Your task to perform on an android device: Find coffee shops on Maps Image 0: 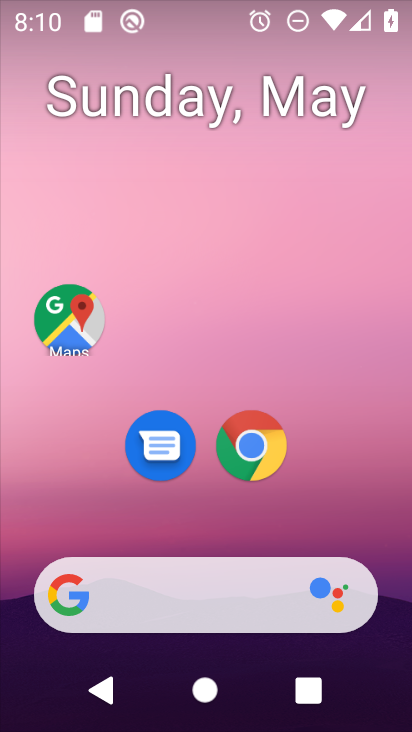
Step 0: drag from (196, 670) to (200, 268)
Your task to perform on an android device: Find coffee shops on Maps Image 1: 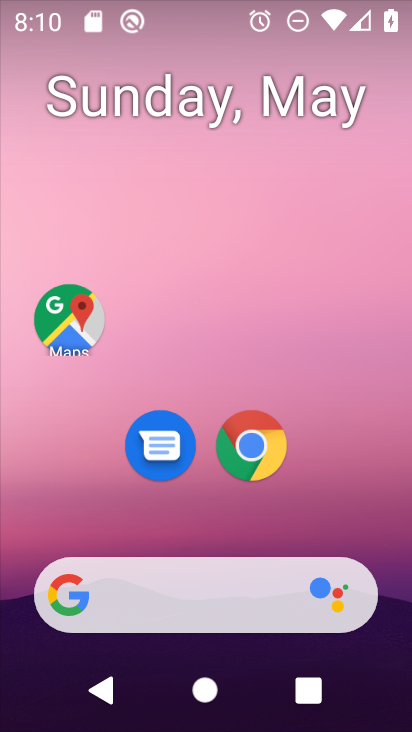
Step 1: click (85, 332)
Your task to perform on an android device: Find coffee shops on Maps Image 2: 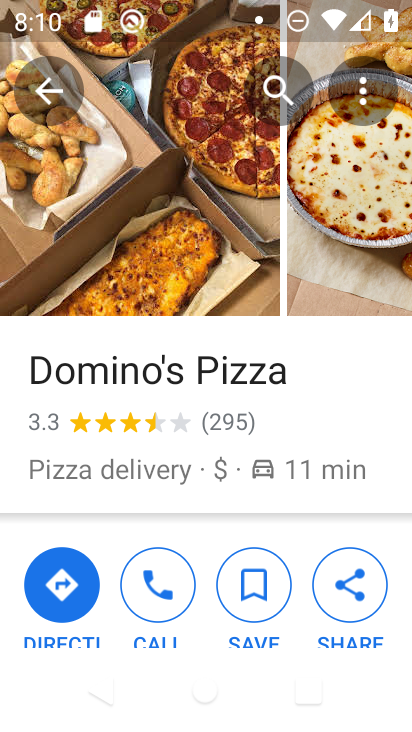
Step 2: click (55, 111)
Your task to perform on an android device: Find coffee shops on Maps Image 3: 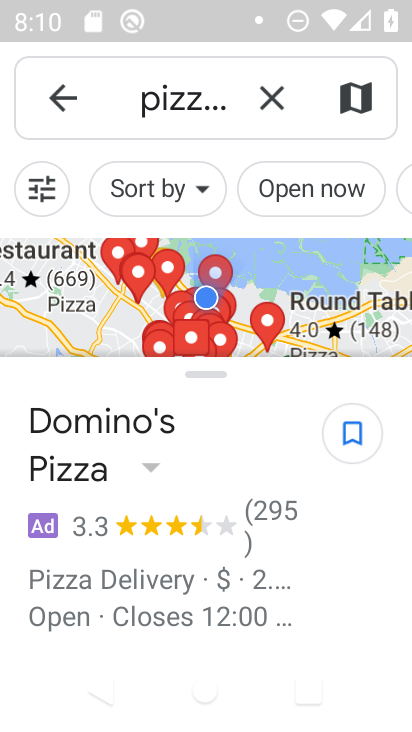
Step 3: click (272, 107)
Your task to perform on an android device: Find coffee shops on Maps Image 4: 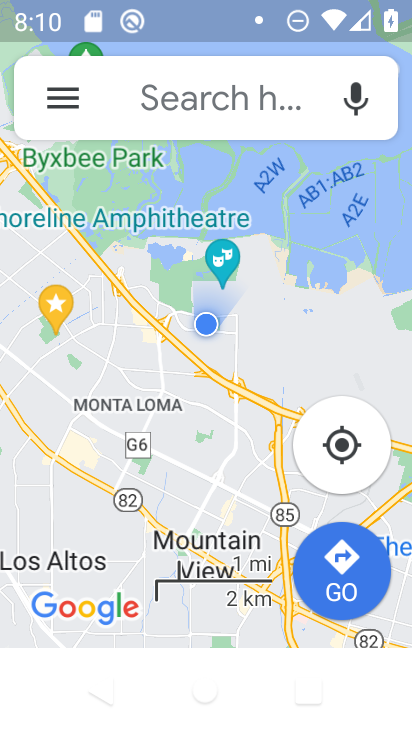
Step 4: click (216, 106)
Your task to perform on an android device: Find coffee shops on Maps Image 5: 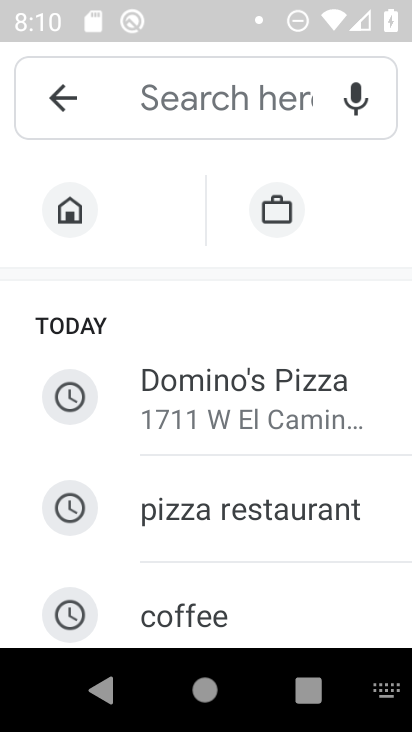
Step 5: type "coffee shops"
Your task to perform on an android device: Find coffee shops on Maps Image 6: 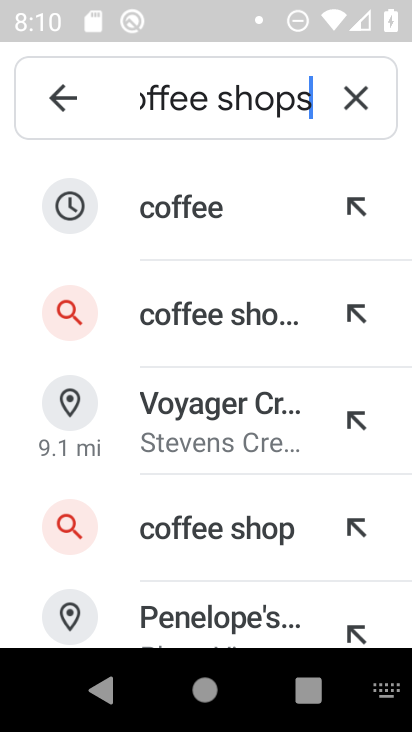
Step 6: click (257, 315)
Your task to perform on an android device: Find coffee shops on Maps Image 7: 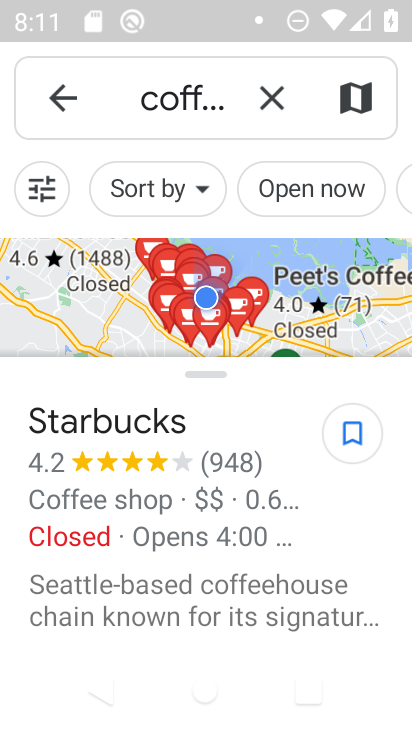
Step 7: task complete